Your task to perform on an android device: Open Google Maps and go to "Timeline" Image 0: 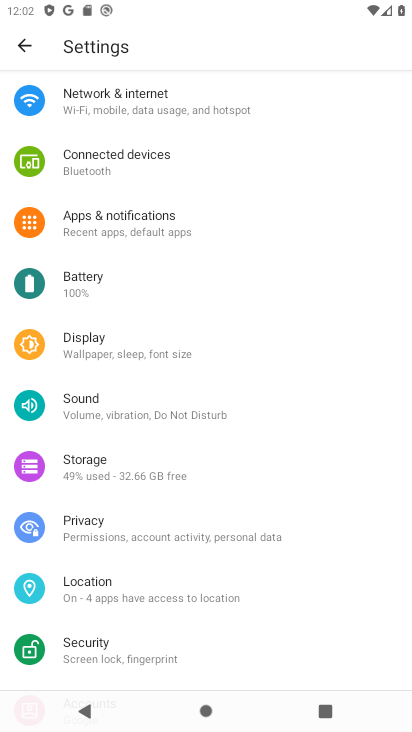
Step 0: press home button
Your task to perform on an android device: Open Google Maps and go to "Timeline" Image 1: 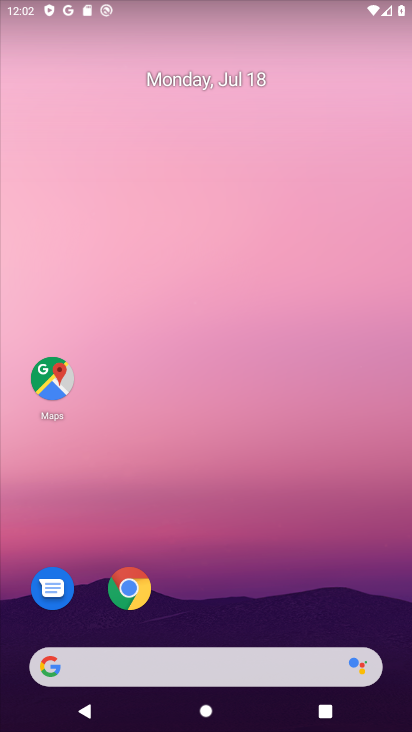
Step 1: click (44, 387)
Your task to perform on an android device: Open Google Maps and go to "Timeline" Image 2: 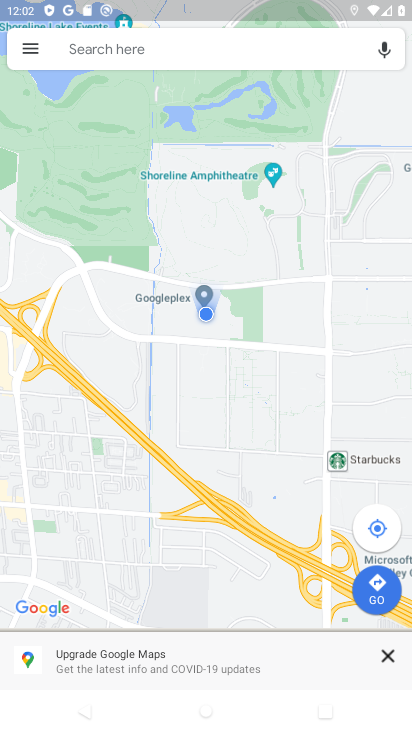
Step 2: click (33, 46)
Your task to perform on an android device: Open Google Maps and go to "Timeline" Image 3: 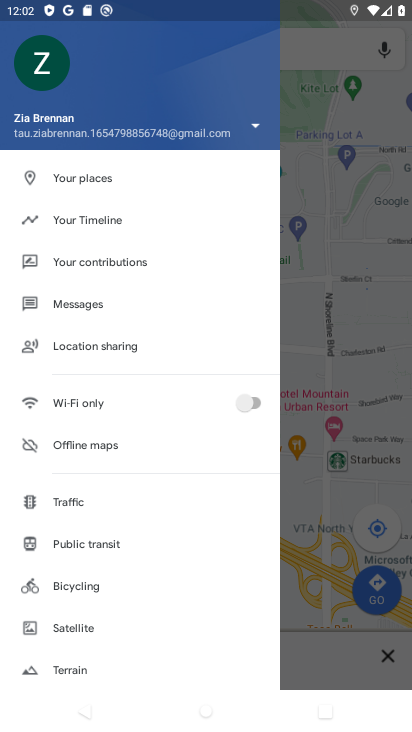
Step 3: click (63, 211)
Your task to perform on an android device: Open Google Maps and go to "Timeline" Image 4: 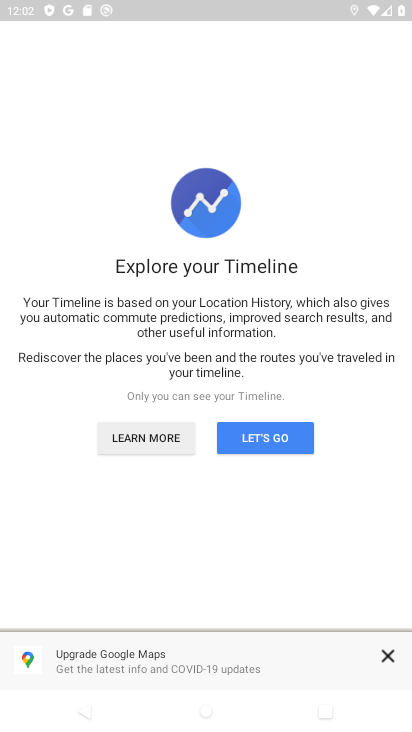
Step 4: click (229, 440)
Your task to perform on an android device: Open Google Maps and go to "Timeline" Image 5: 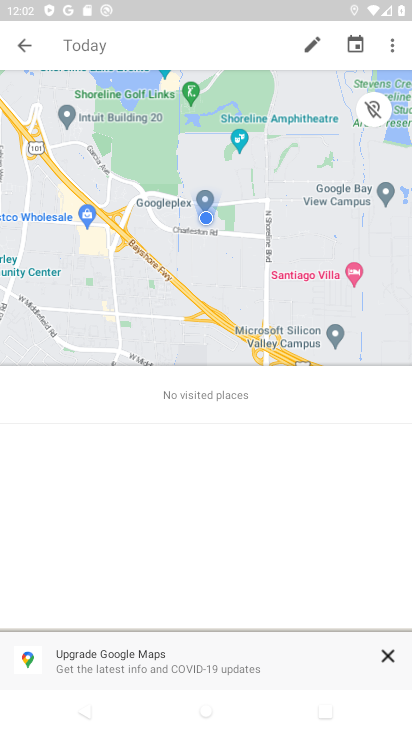
Step 5: task complete